Your task to perform on an android device: toggle pop-ups in chrome Image 0: 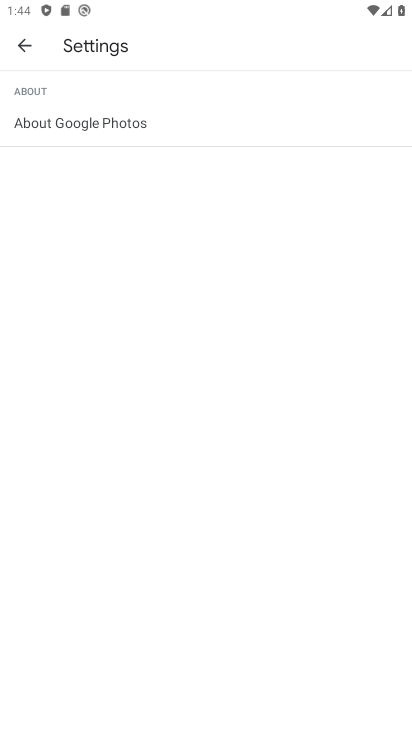
Step 0: press home button
Your task to perform on an android device: toggle pop-ups in chrome Image 1: 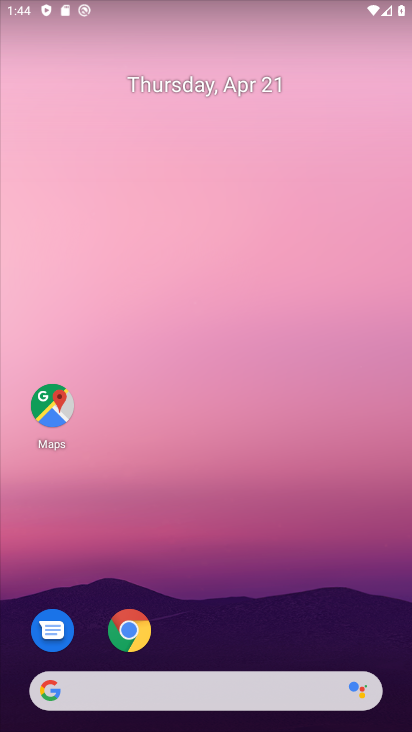
Step 1: click (131, 637)
Your task to perform on an android device: toggle pop-ups in chrome Image 2: 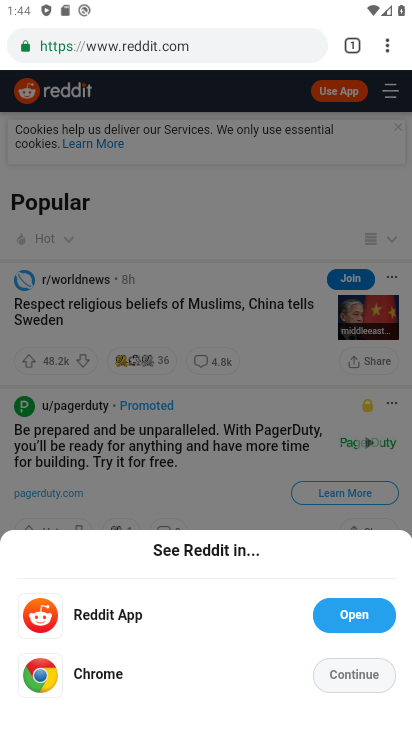
Step 2: click (388, 50)
Your task to perform on an android device: toggle pop-ups in chrome Image 3: 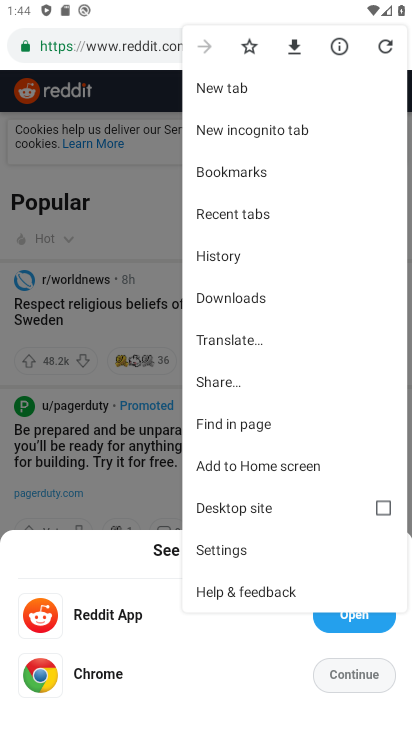
Step 3: click (245, 553)
Your task to perform on an android device: toggle pop-ups in chrome Image 4: 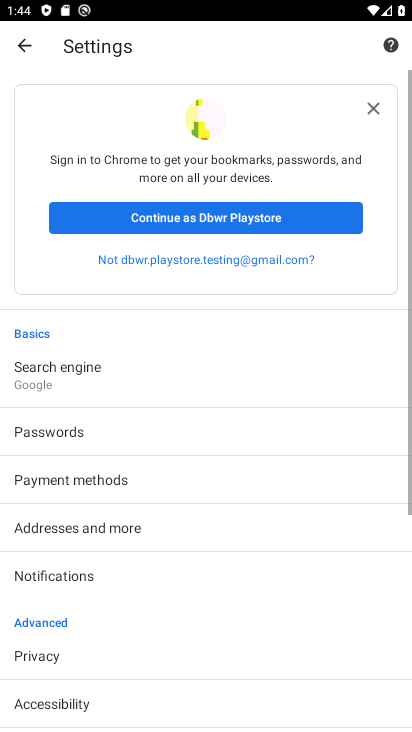
Step 4: drag from (194, 513) to (169, 259)
Your task to perform on an android device: toggle pop-ups in chrome Image 5: 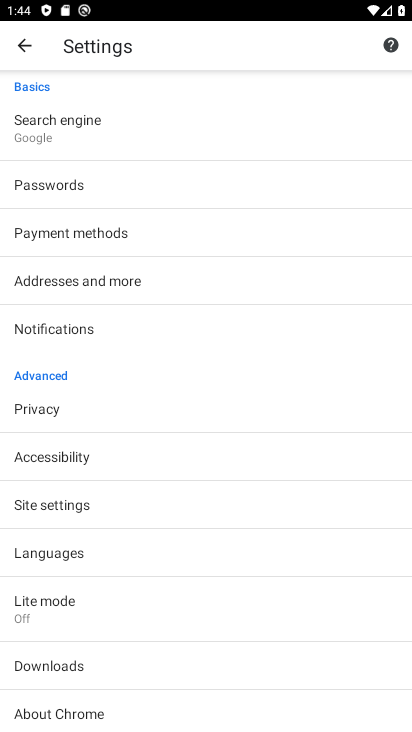
Step 5: click (41, 511)
Your task to perform on an android device: toggle pop-ups in chrome Image 6: 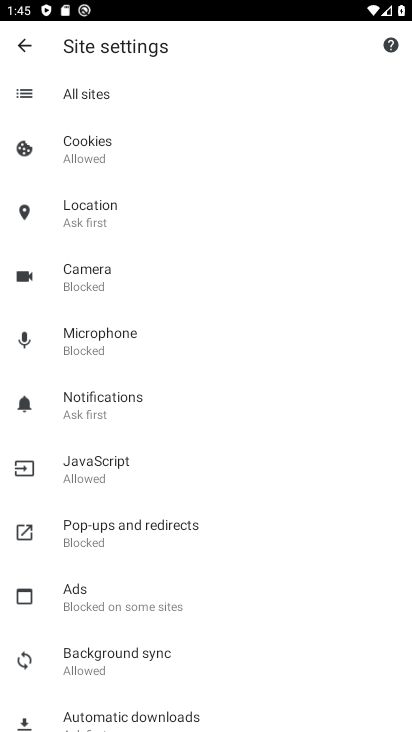
Step 6: click (87, 539)
Your task to perform on an android device: toggle pop-ups in chrome Image 7: 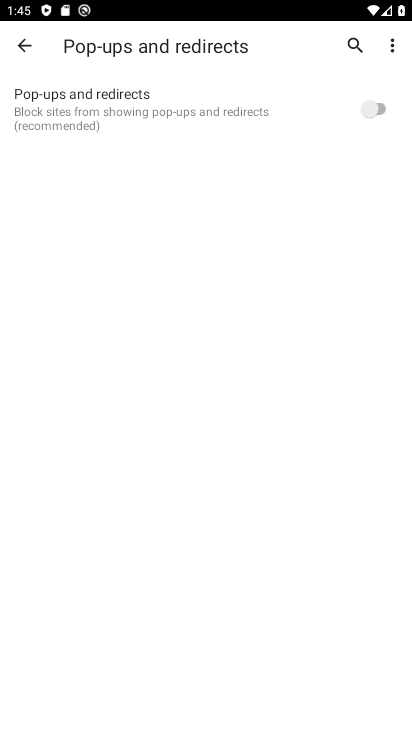
Step 7: click (372, 105)
Your task to perform on an android device: toggle pop-ups in chrome Image 8: 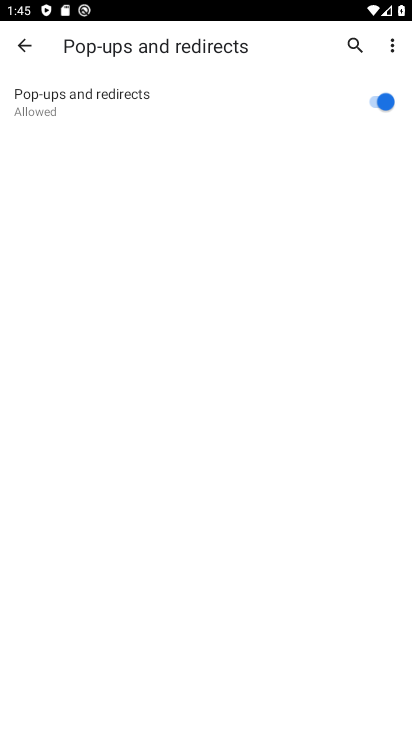
Step 8: task complete